Your task to perform on an android device: turn on showing notifications on the lock screen Image 0: 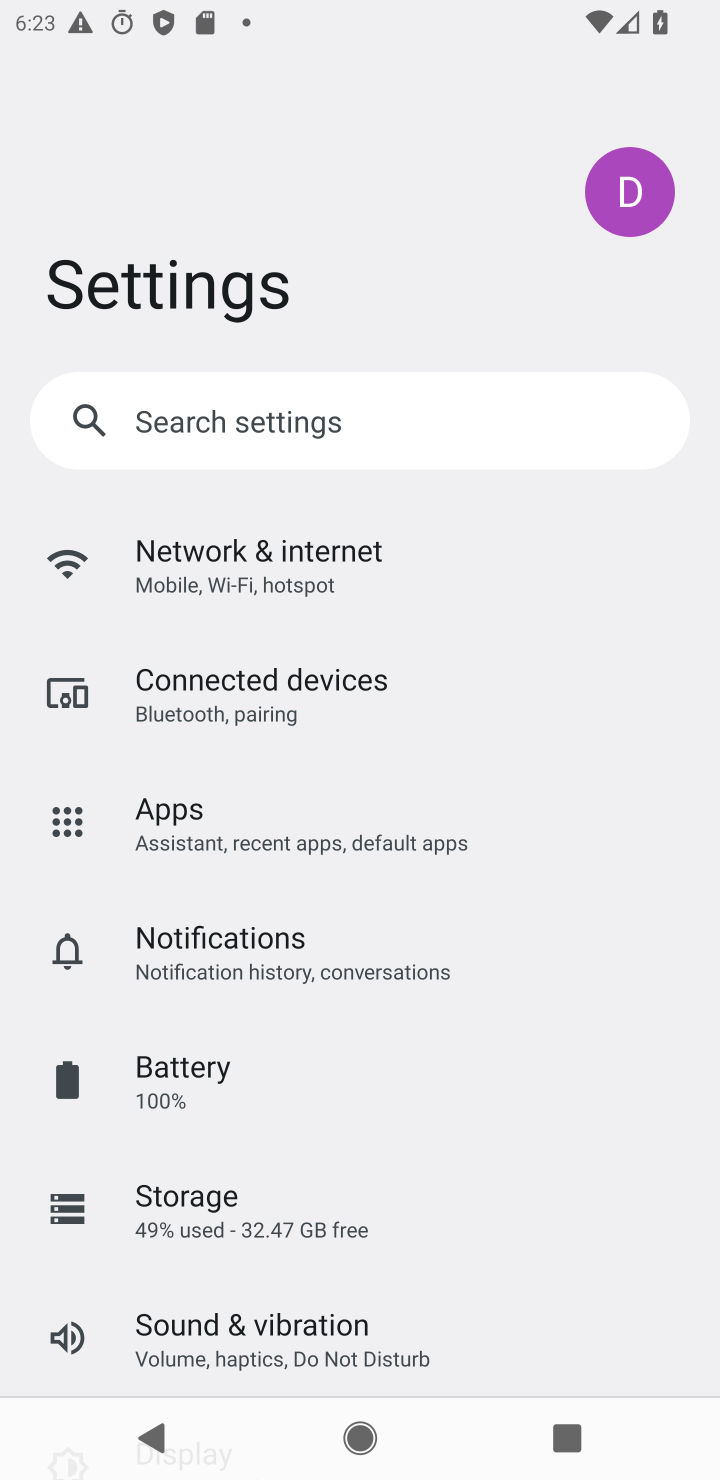
Step 0: press home button
Your task to perform on an android device: turn on showing notifications on the lock screen Image 1: 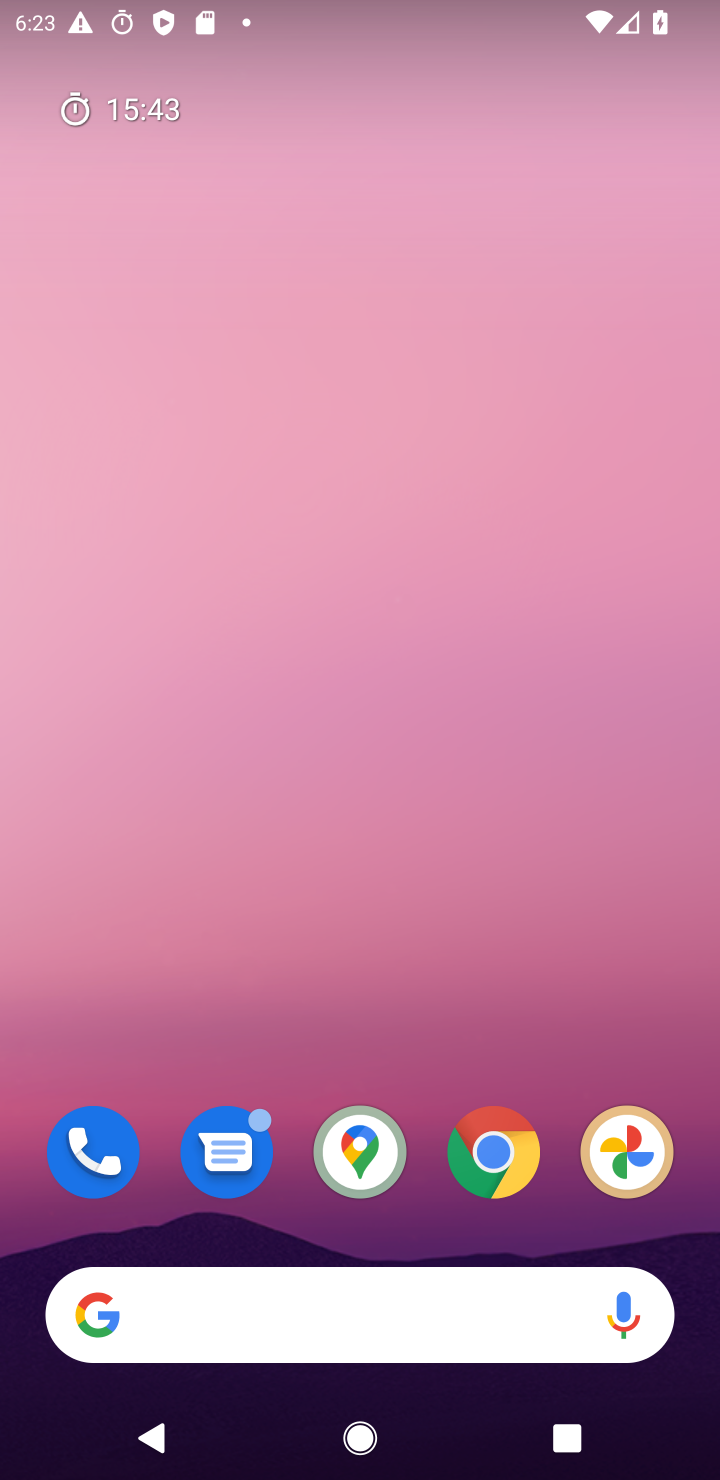
Step 1: drag from (416, 1229) to (496, 155)
Your task to perform on an android device: turn on showing notifications on the lock screen Image 2: 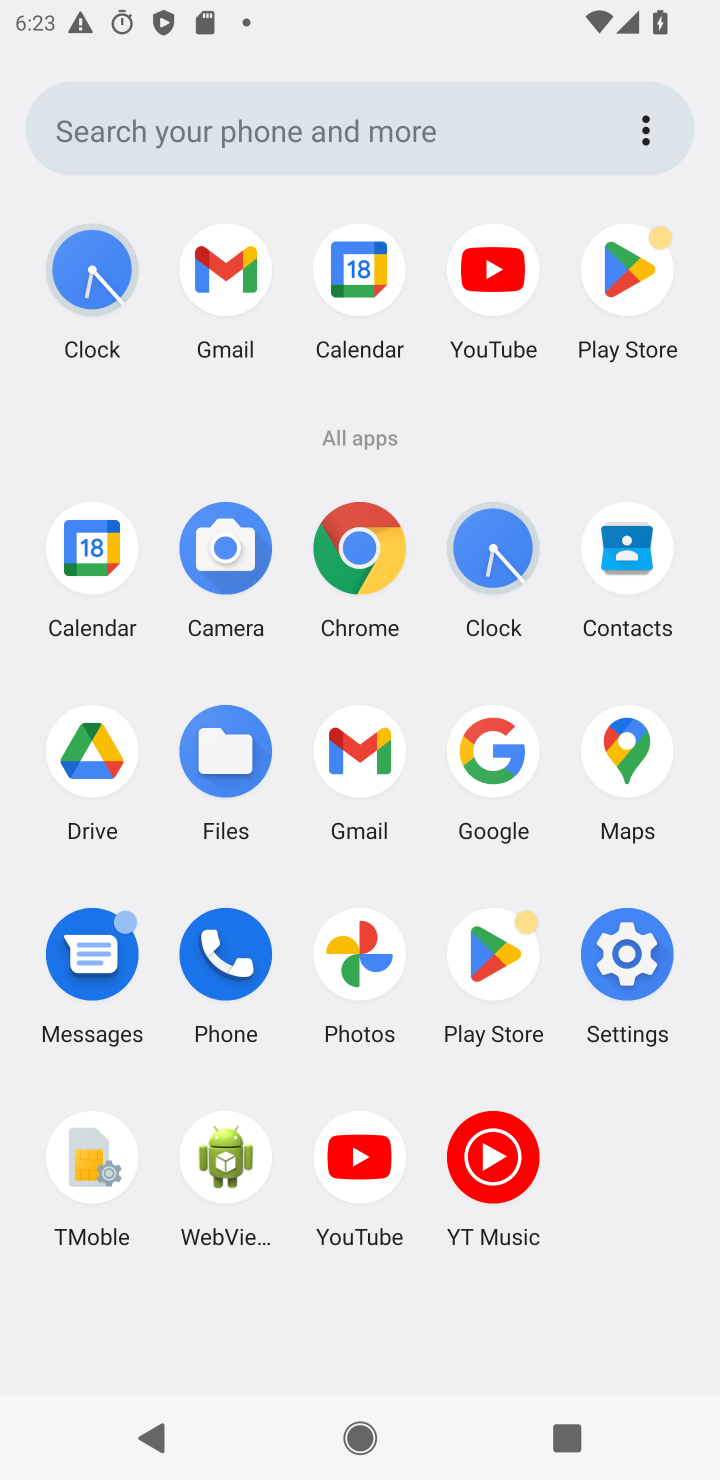
Step 2: click (638, 946)
Your task to perform on an android device: turn on showing notifications on the lock screen Image 3: 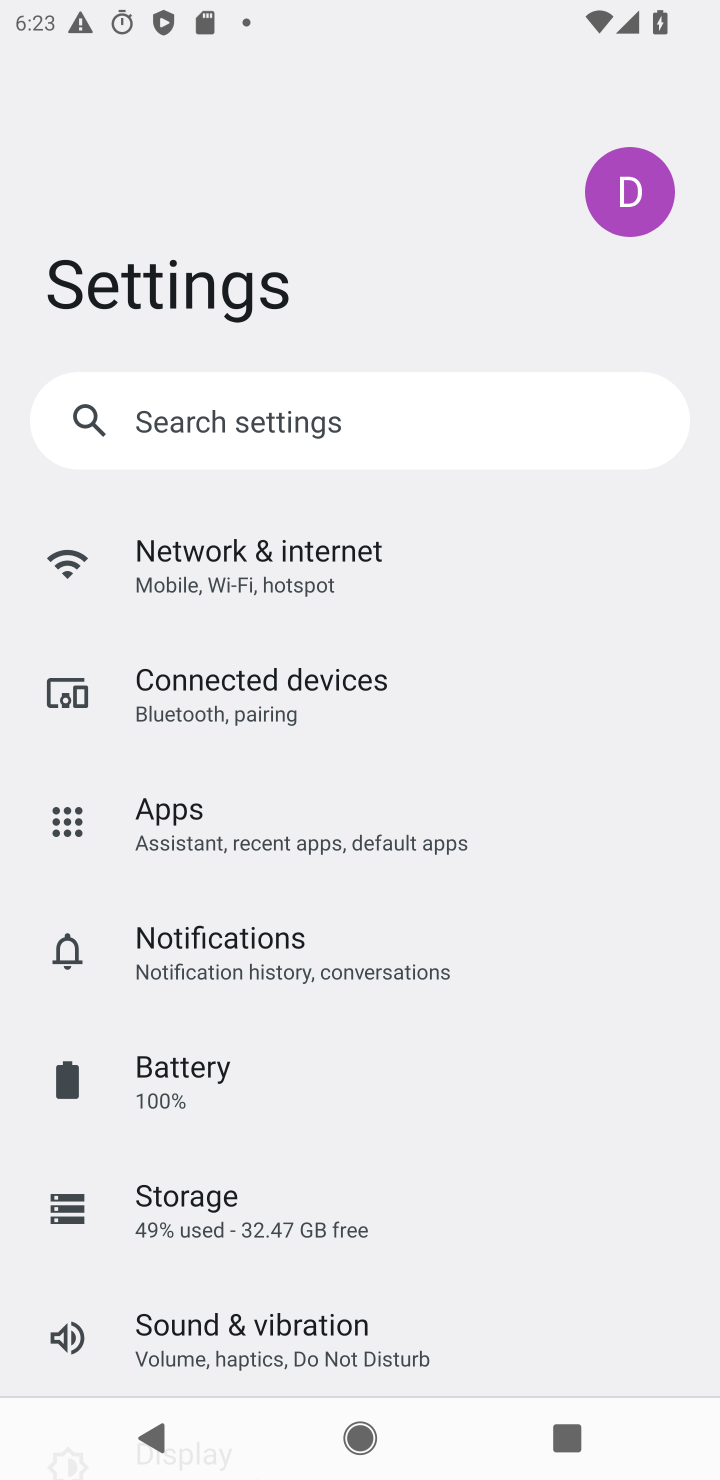
Step 3: click (274, 940)
Your task to perform on an android device: turn on showing notifications on the lock screen Image 4: 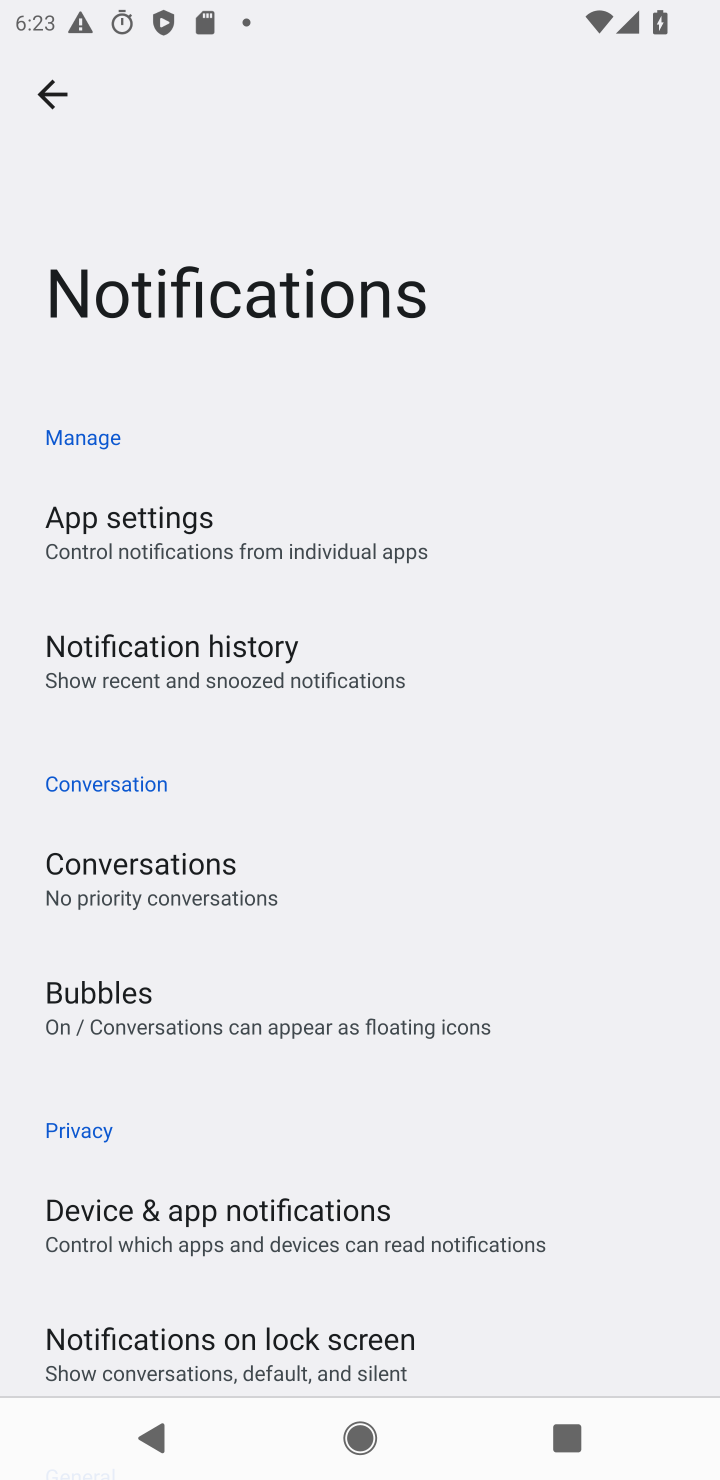
Step 4: drag from (163, 974) to (196, 435)
Your task to perform on an android device: turn on showing notifications on the lock screen Image 5: 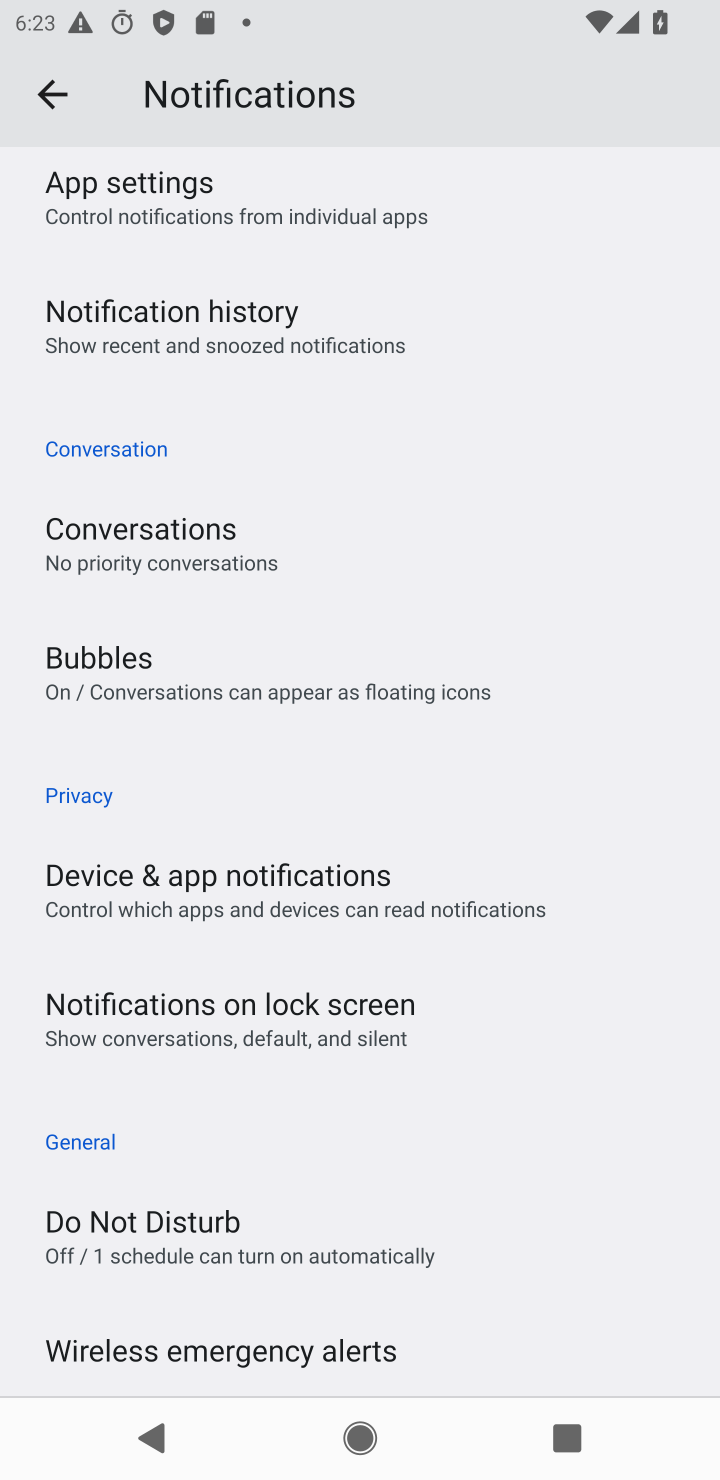
Step 5: click (297, 1020)
Your task to perform on an android device: turn on showing notifications on the lock screen Image 6: 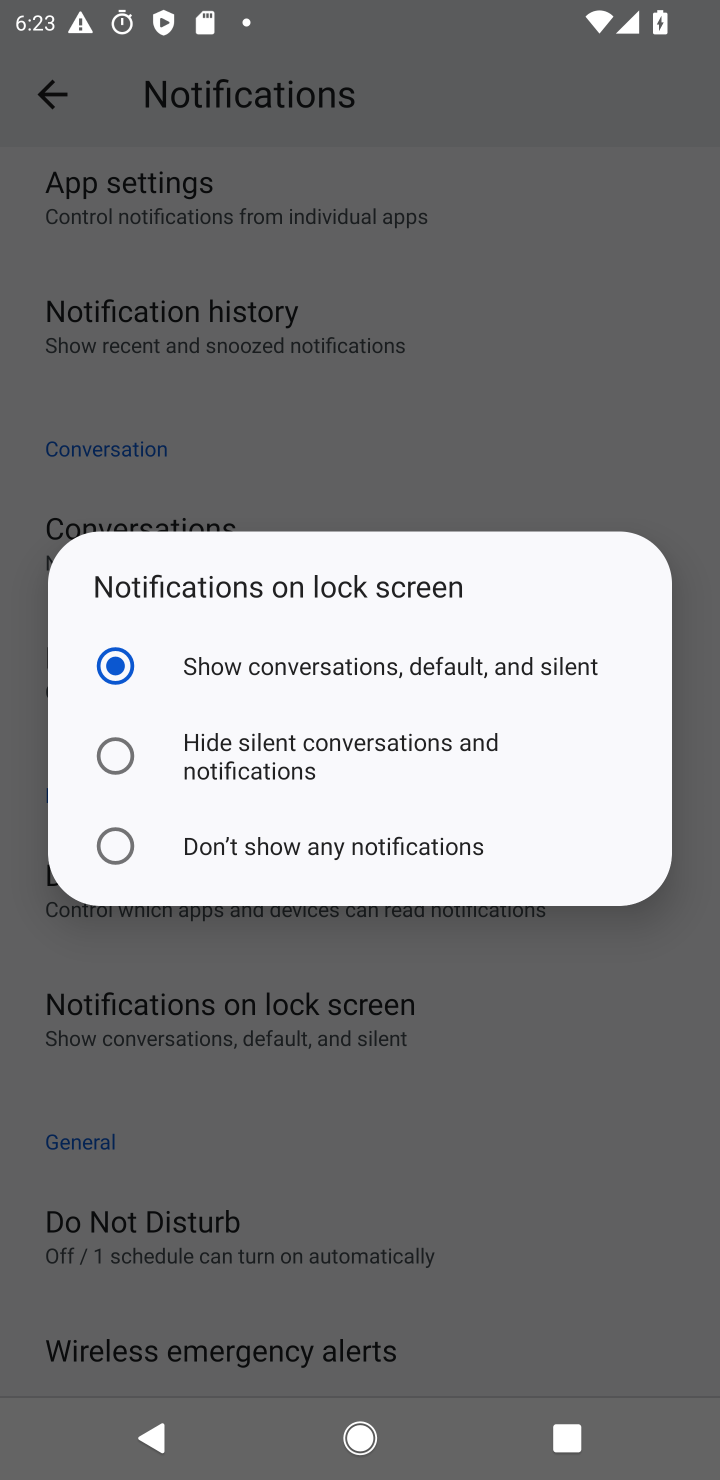
Step 6: task complete